Your task to perform on an android device: install app "PUBG MOBILE" Image 0: 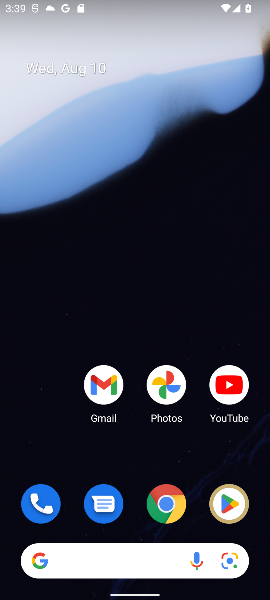
Step 0: click (226, 515)
Your task to perform on an android device: install app "PUBG MOBILE" Image 1: 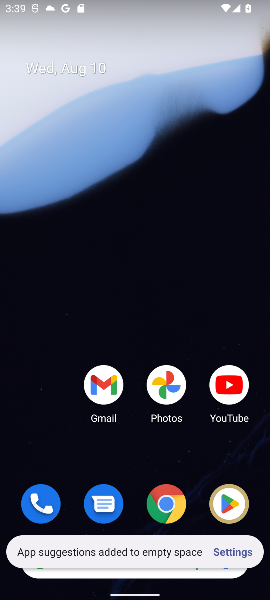
Step 1: click (236, 505)
Your task to perform on an android device: install app "PUBG MOBILE" Image 2: 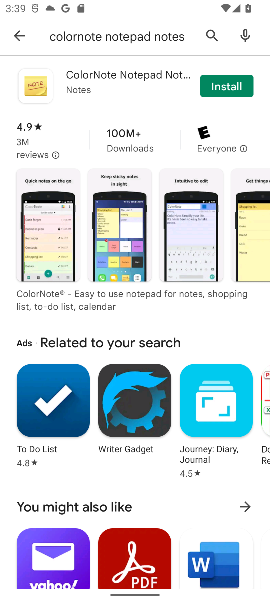
Step 2: click (211, 45)
Your task to perform on an android device: install app "PUBG MOBILE" Image 3: 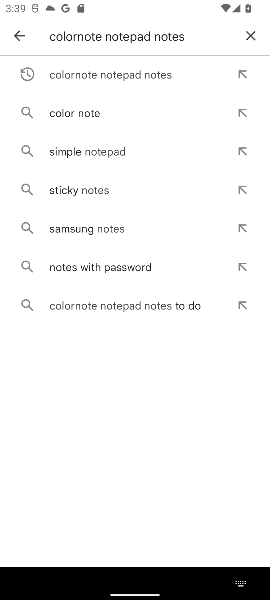
Step 3: click (253, 36)
Your task to perform on an android device: install app "PUBG MOBILE" Image 4: 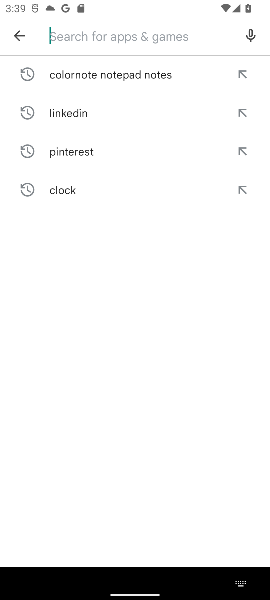
Step 4: type "PUBG MOBILE"
Your task to perform on an android device: install app "PUBG MOBILE" Image 5: 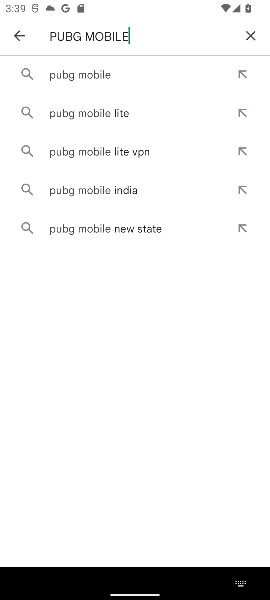
Step 5: click (99, 74)
Your task to perform on an android device: install app "PUBG MOBILE" Image 6: 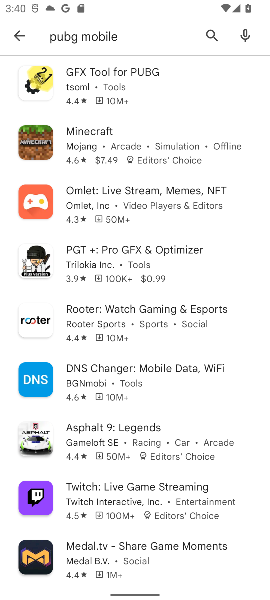
Step 6: task complete